Your task to perform on an android device: What is the news today? Image 0: 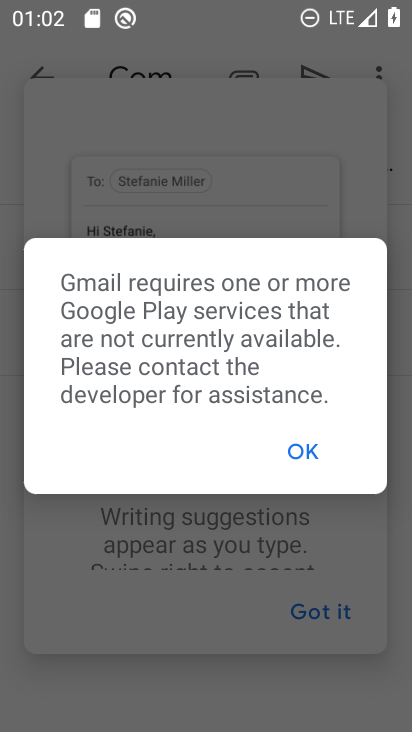
Step 0: press home button
Your task to perform on an android device: What is the news today? Image 1: 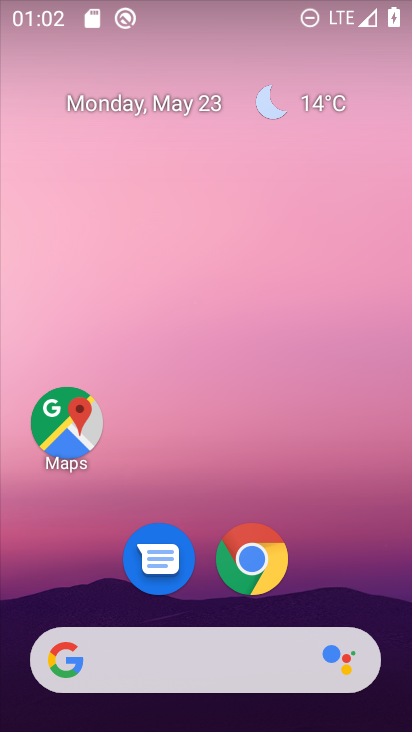
Step 1: click (136, 666)
Your task to perform on an android device: What is the news today? Image 2: 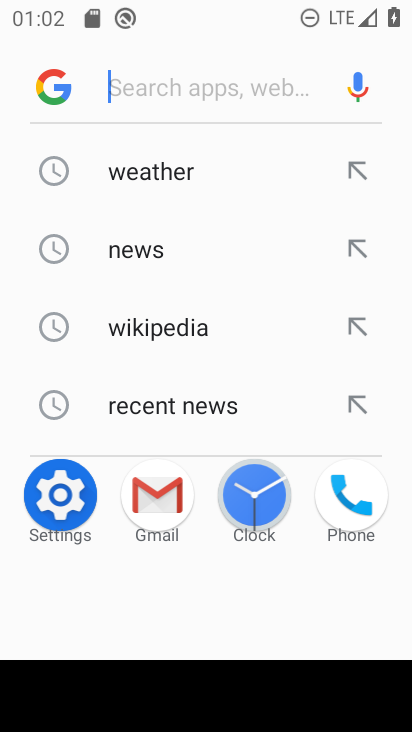
Step 2: type "news today"
Your task to perform on an android device: What is the news today? Image 3: 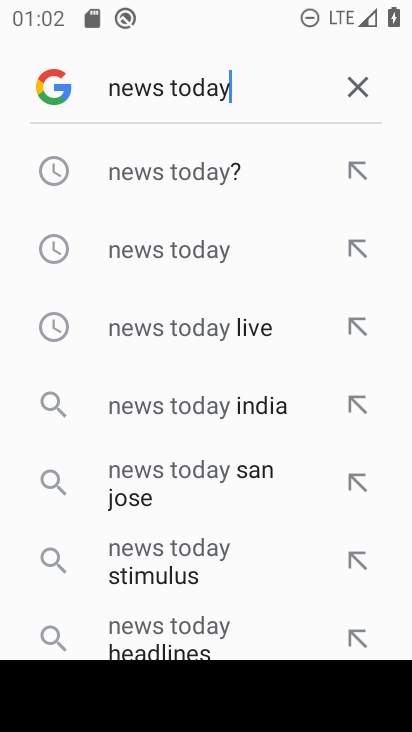
Step 3: click (154, 259)
Your task to perform on an android device: What is the news today? Image 4: 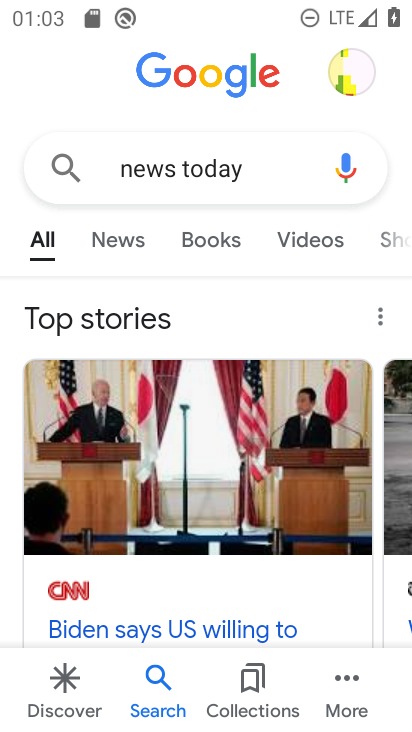
Step 4: click (117, 247)
Your task to perform on an android device: What is the news today? Image 5: 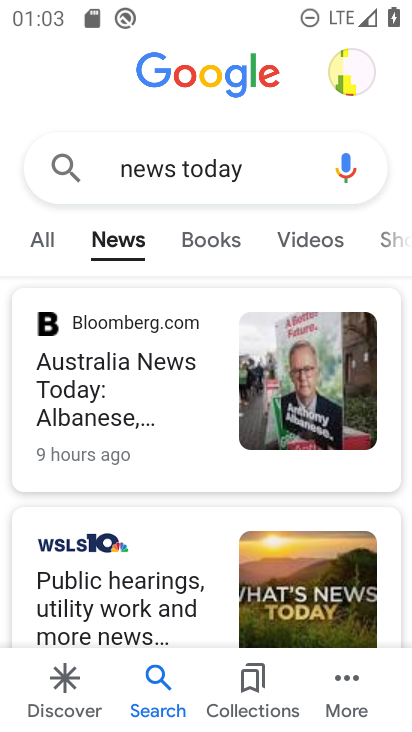
Step 5: click (106, 374)
Your task to perform on an android device: What is the news today? Image 6: 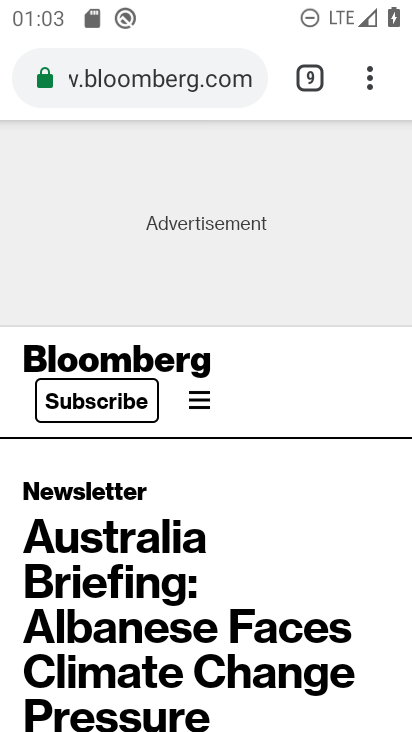
Step 6: task complete